Your task to perform on an android device: Open Wikipedia Image 0: 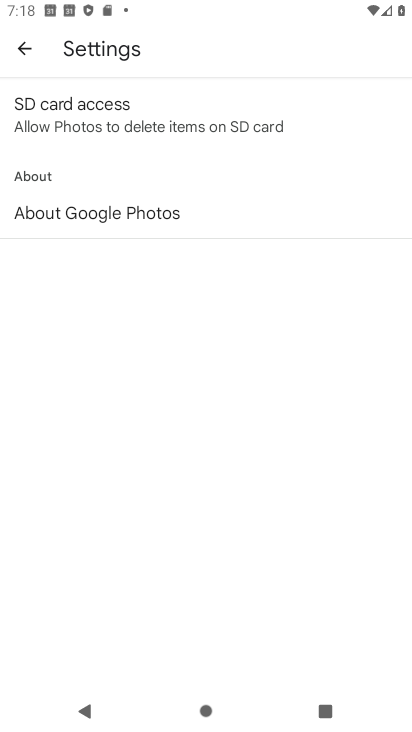
Step 0: press home button
Your task to perform on an android device: Open Wikipedia Image 1: 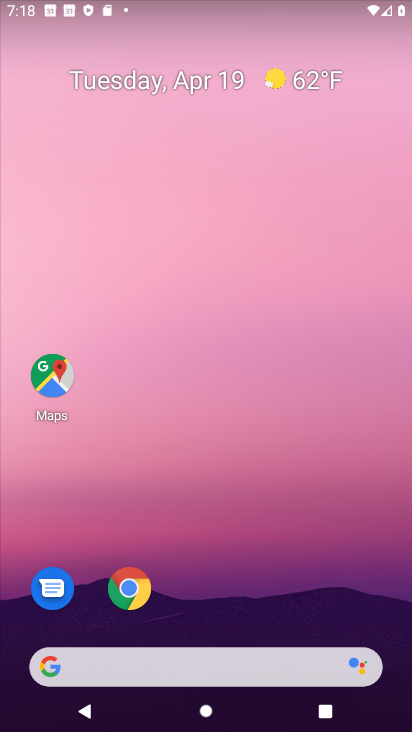
Step 1: click (131, 589)
Your task to perform on an android device: Open Wikipedia Image 2: 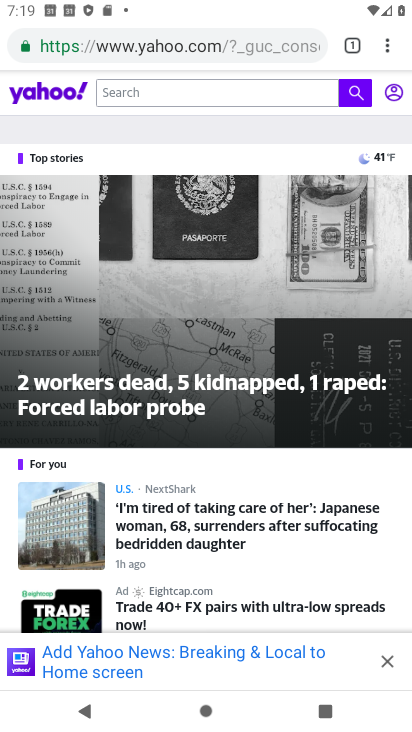
Step 2: click (384, 47)
Your task to perform on an android device: Open Wikipedia Image 3: 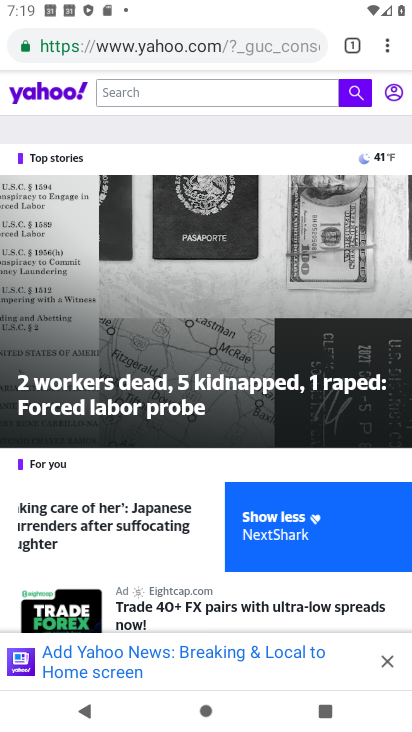
Step 3: click (384, 47)
Your task to perform on an android device: Open Wikipedia Image 4: 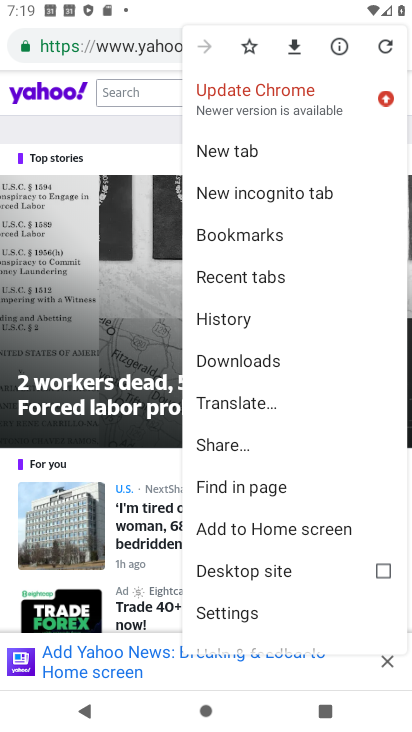
Step 4: click (235, 147)
Your task to perform on an android device: Open Wikipedia Image 5: 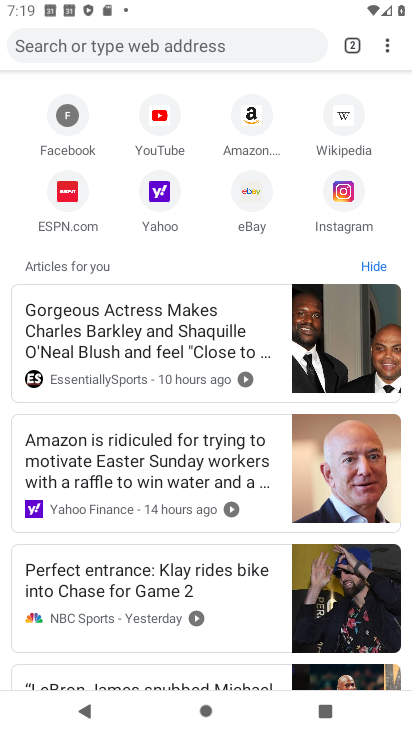
Step 5: click (341, 121)
Your task to perform on an android device: Open Wikipedia Image 6: 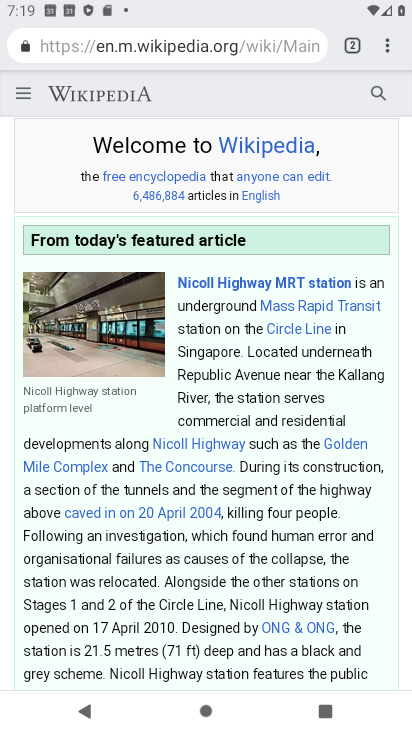
Step 6: task complete